Your task to perform on an android device: Open network settings Image 0: 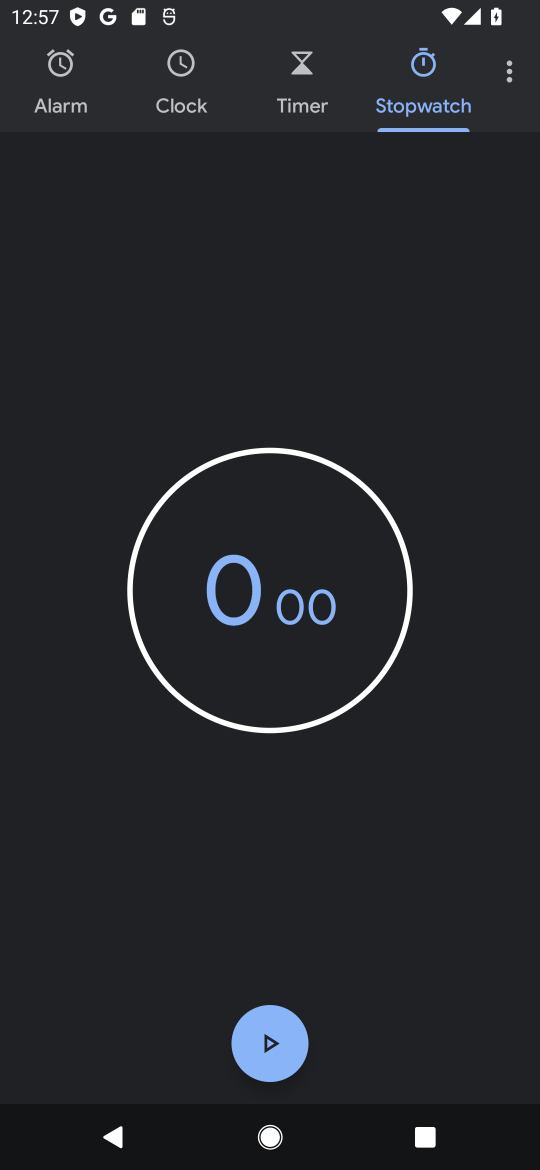
Step 0: press home button
Your task to perform on an android device: Open network settings Image 1: 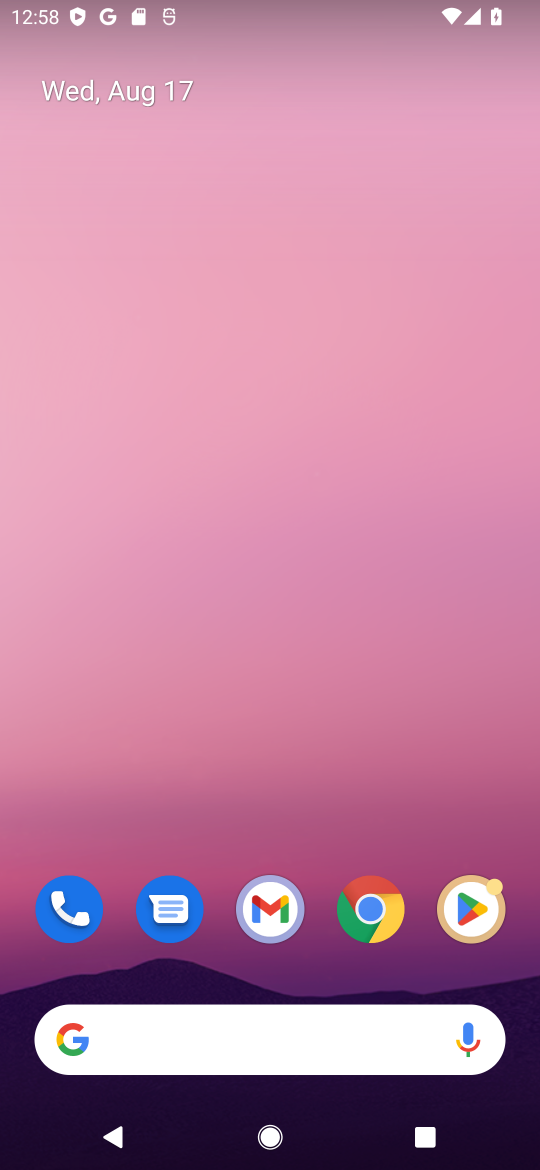
Step 1: drag from (364, 823) to (218, 81)
Your task to perform on an android device: Open network settings Image 2: 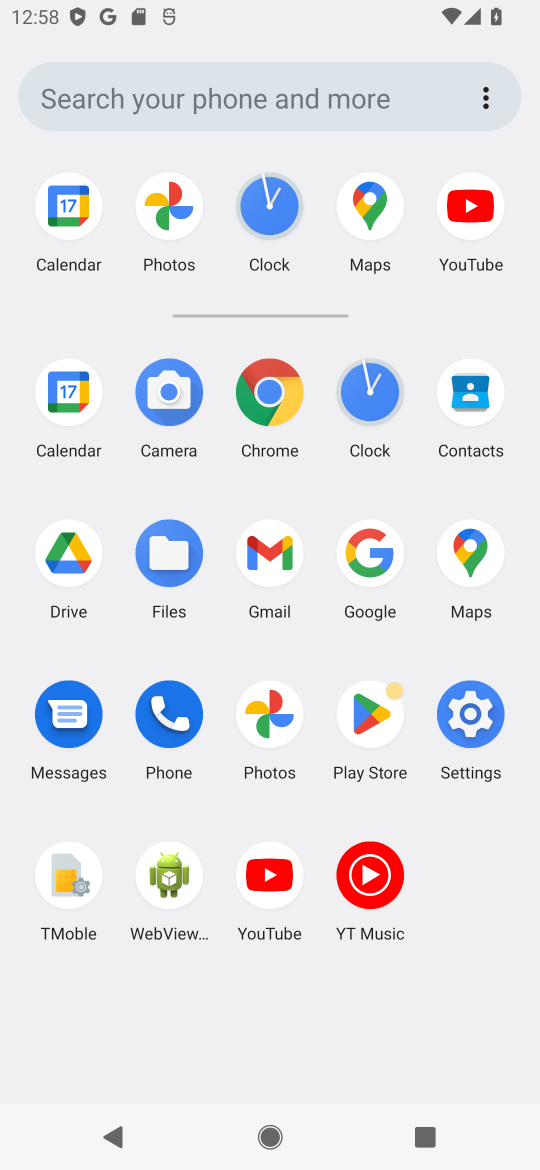
Step 2: click (473, 713)
Your task to perform on an android device: Open network settings Image 3: 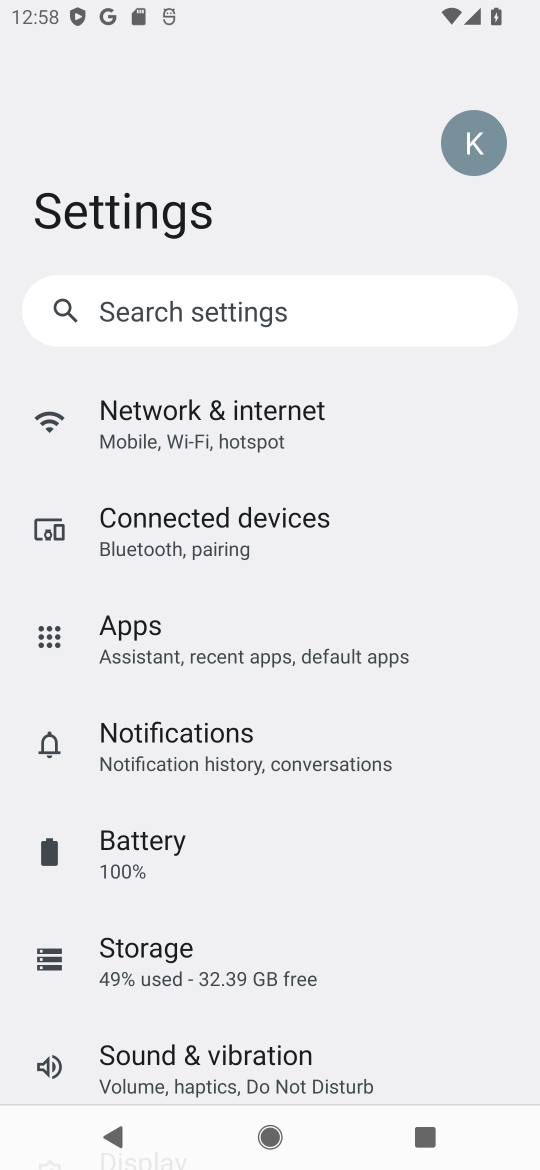
Step 3: click (162, 413)
Your task to perform on an android device: Open network settings Image 4: 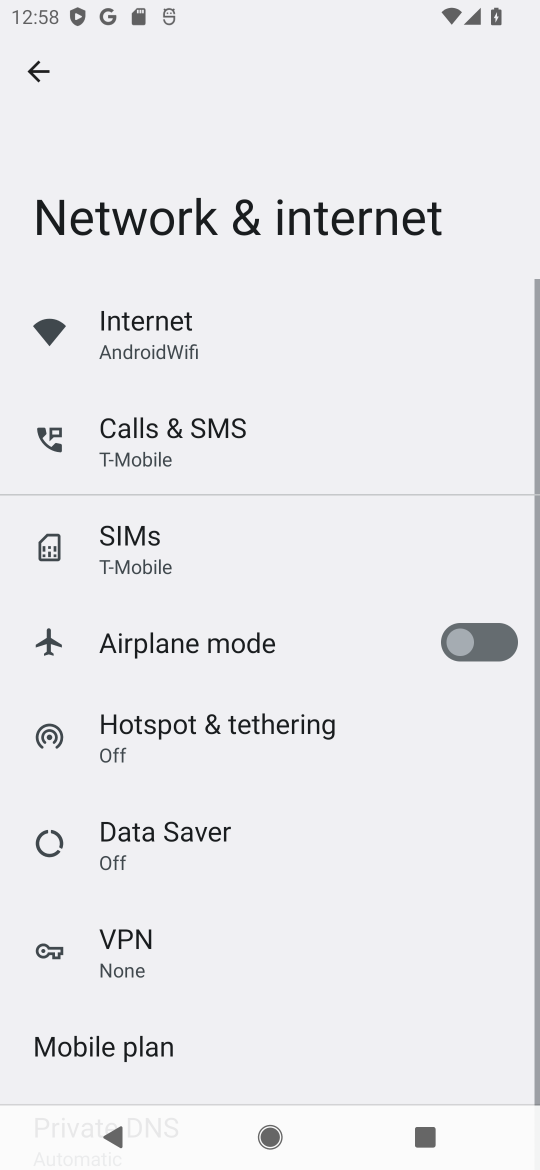
Step 4: task complete